Your task to perform on an android device: choose inbox layout in the gmail app Image 0: 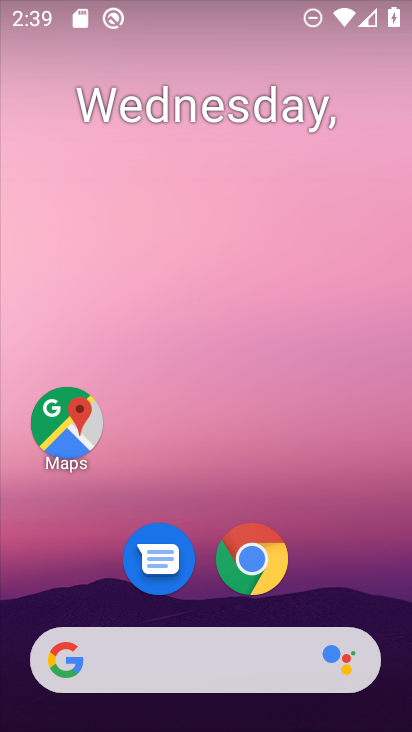
Step 0: drag from (391, 536) to (329, 82)
Your task to perform on an android device: choose inbox layout in the gmail app Image 1: 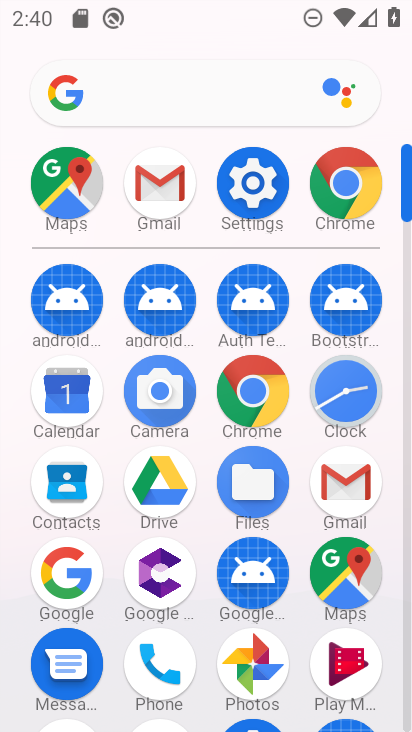
Step 1: click (167, 168)
Your task to perform on an android device: choose inbox layout in the gmail app Image 2: 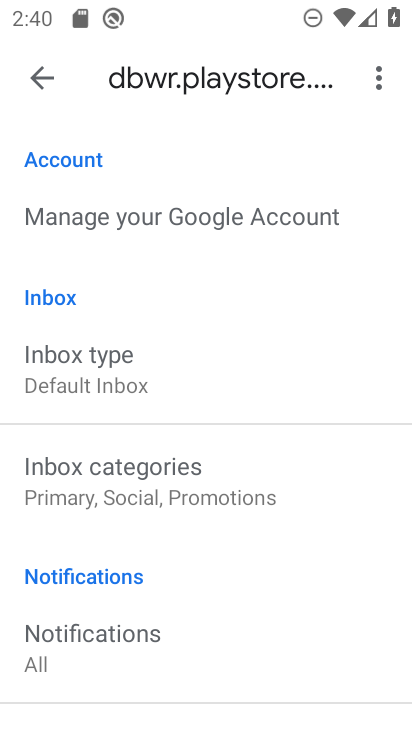
Step 2: click (103, 380)
Your task to perform on an android device: choose inbox layout in the gmail app Image 3: 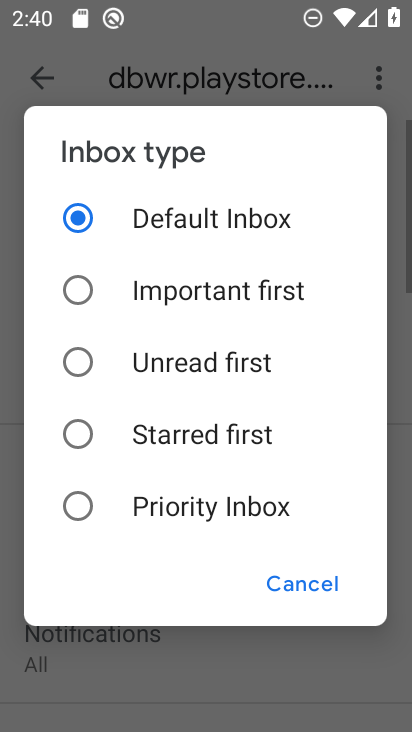
Step 3: click (138, 364)
Your task to perform on an android device: choose inbox layout in the gmail app Image 4: 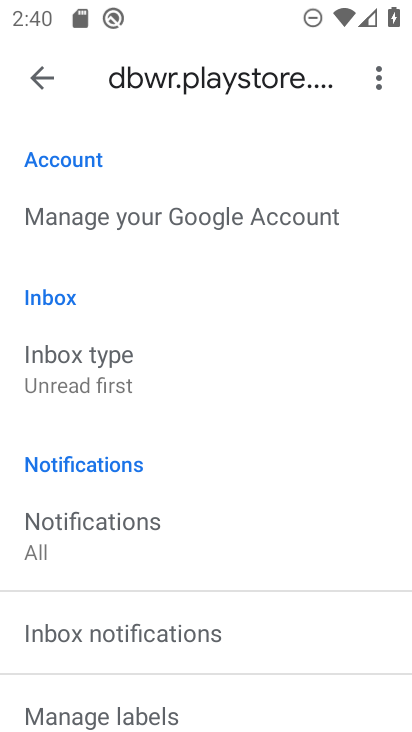
Step 4: task complete